Your task to perform on an android device: turn on javascript in the chrome app Image 0: 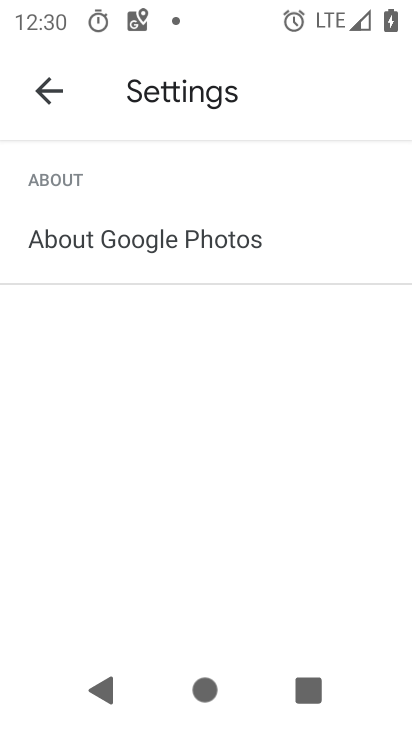
Step 0: press home button
Your task to perform on an android device: turn on javascript in the chrome app Image 1: 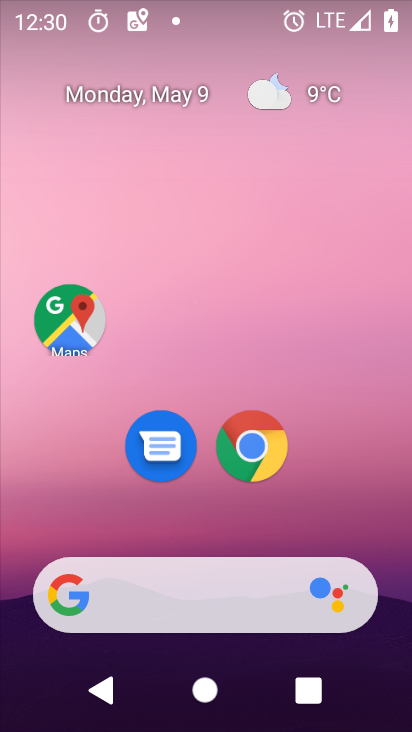
Step 1: click (258, 448)
Your task to perform on an android device: turn on javascript in the chrome app Image 2: 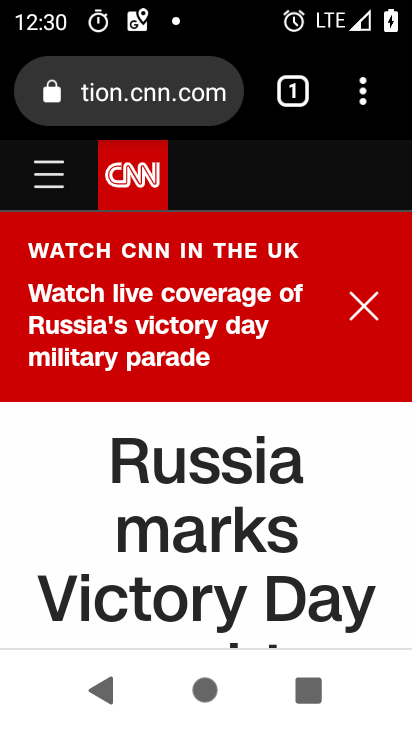
Step 2: drag from (366, 95) to (120, 479)
Your task to perform on an android device: turn on javascript in the chrome app Image 3: 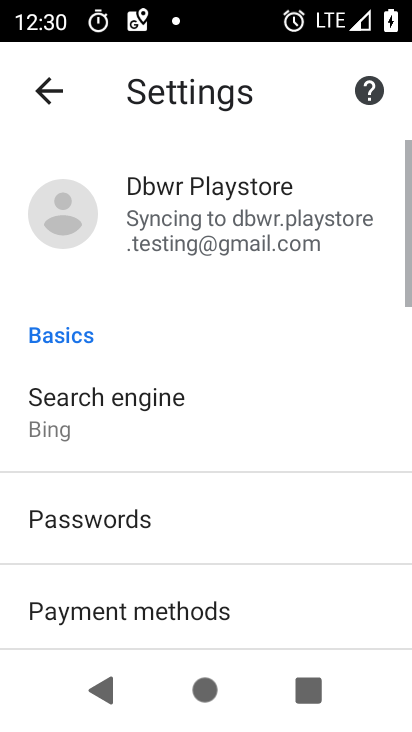
Step 3: drag from (210, 521) to (211, 158)
Your task to perform on an android device: turn on javascript in the chrome app Image 4: 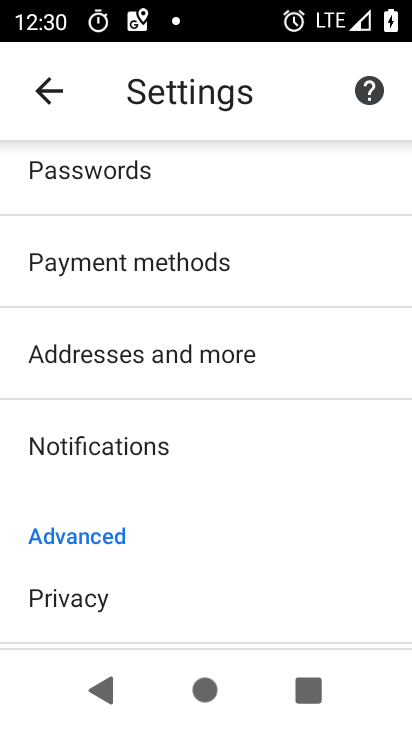
Step 4: drag from (139, 485) to (144, 157)
Your task to perform on an android device: turn on javascript in the chrome app Image 5: 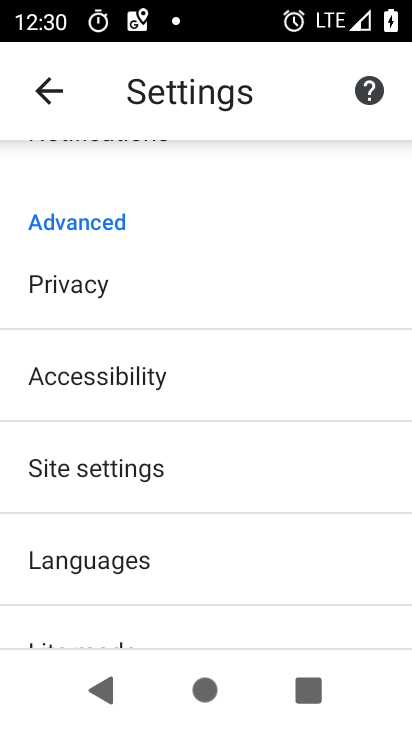
Step 5: click (79, 476)
Your task to perform on an android device: turn on javascript in the chrome app Image 6: 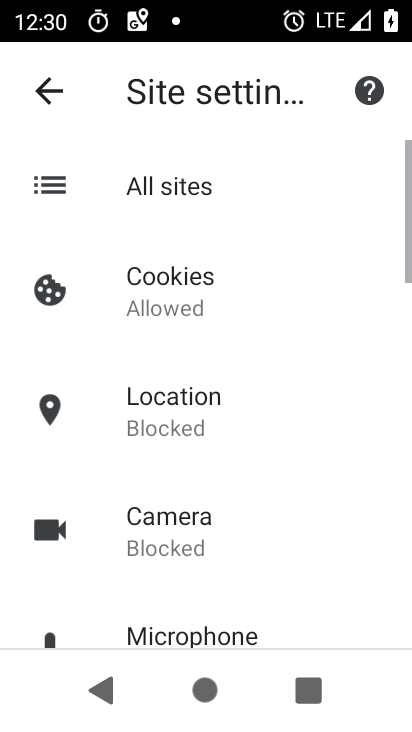
Step 6: drag from (209, 541) to (220, 189)
Your task to perform on an android device: turn on javascript in the chrome app Image 7: 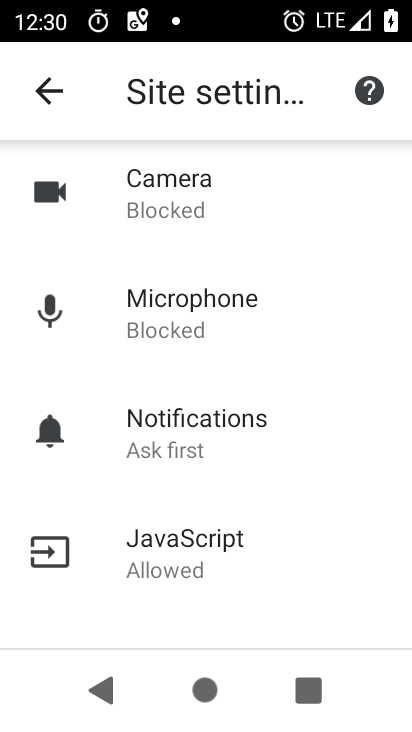
Step 7: click (203, 544)
Your task to perform on an android device: turn on javascript in the chrome app Image 8: 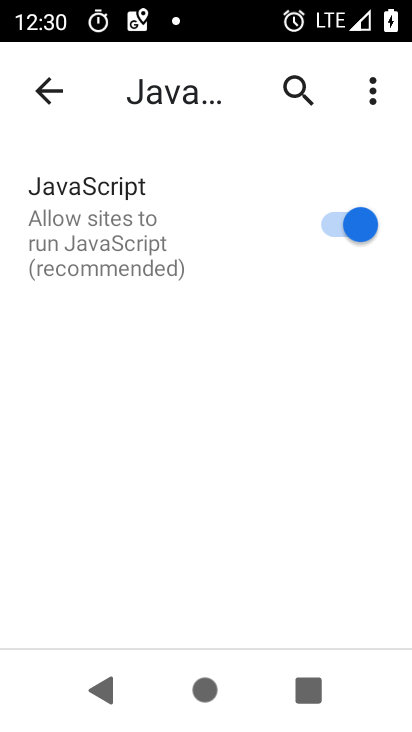
Step 8: task complete